Your task to perform on an android device: turn on priority inbox in the gmail app Image 0: 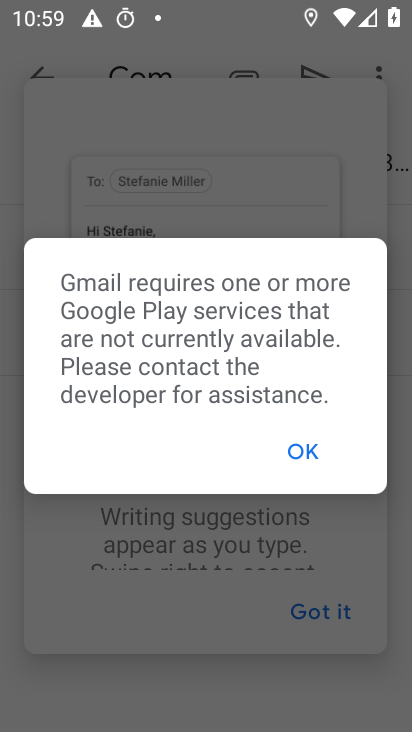
Step 0: press home button
Your task to perform on an android device: turn on priority inbox in the gmail app Image 1: 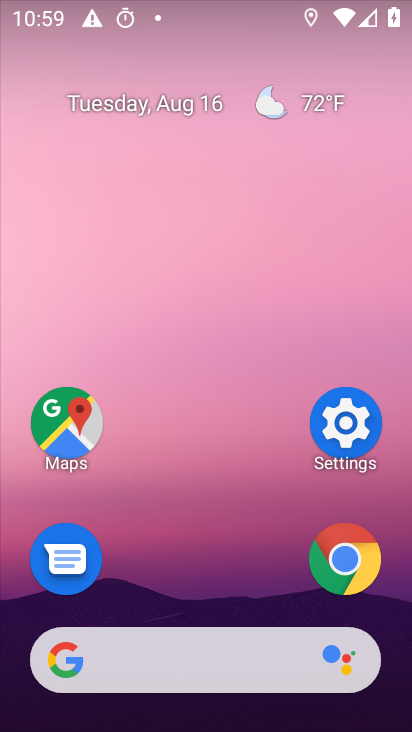
Step 1: drag from (190, 624) to (232, 181)
Your task to perform on an android device: turn on priority inbox in the gmail app Image 2: 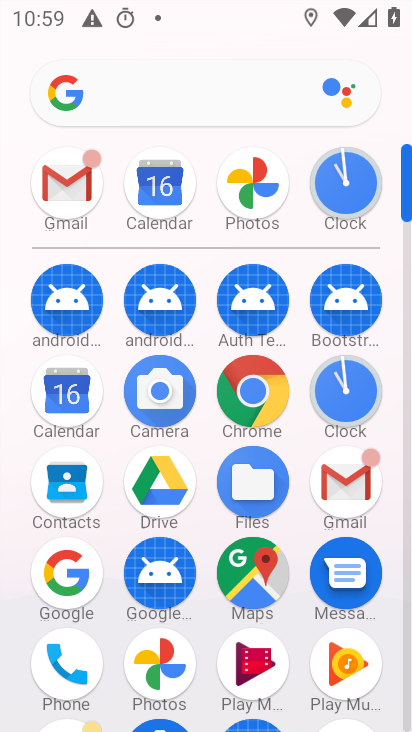
Step 2: click (64, 182)
Your task to perform on an android device: turn on priority inbox in the gmail app Image 3: 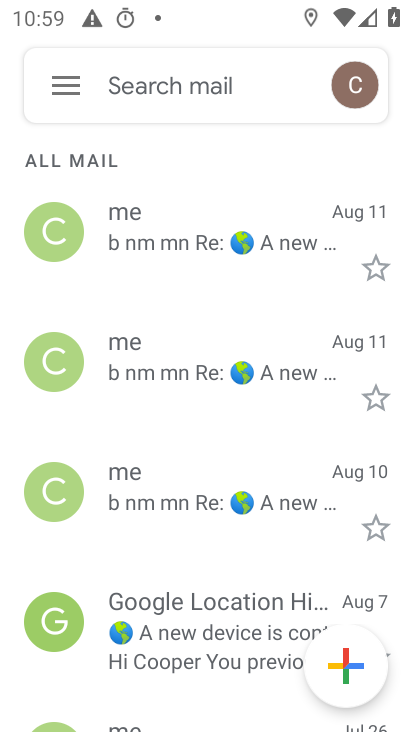
Step 3: click (61, 87)
Your task to perform on an android device: turn on priority inbox in the gmail app Image 4: 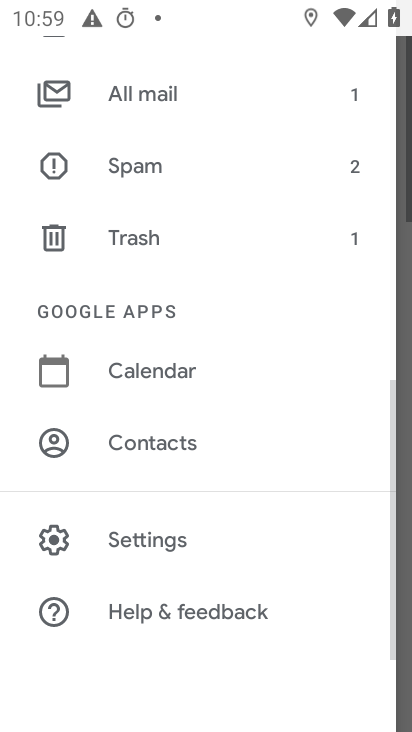
Step 4: click (170, 531)
Your task to perform on an android device: turn on priority inbox in the gmail app Image 5: 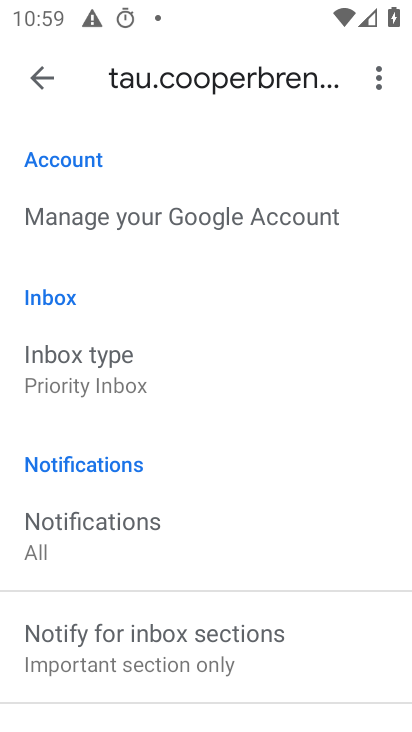
Step 5: click (97, 374)
Your task to perform on an android device: turn on priority inbox in the gmail app Image 6: 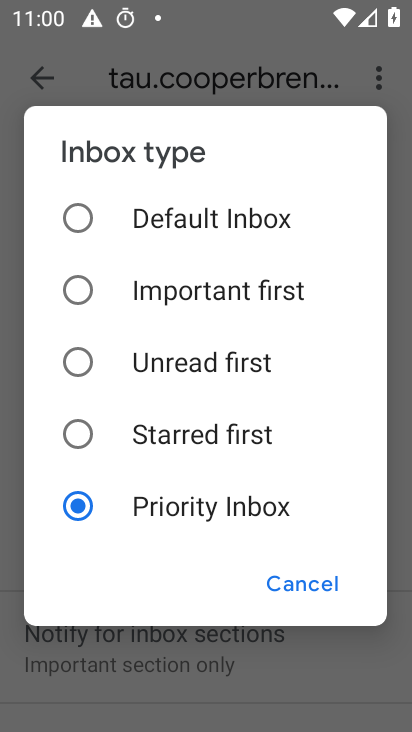
Step 6: task complete